Your task to perform on an android device: search for starred emails in the gmail app Image 0: 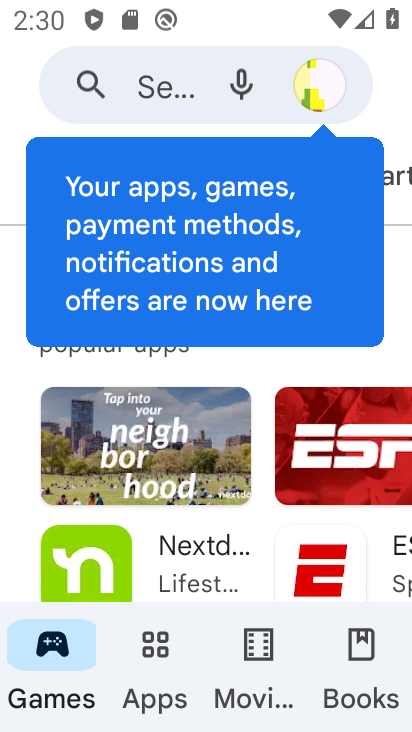
Step 0: press home button
Your task to perform on an android device: search for starred emails in the gmail app Image 1: 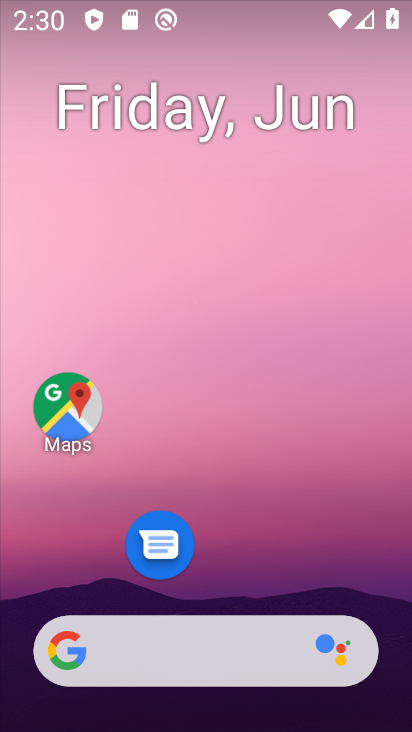
Step 1: drag from (240, 564) to (270, 138)
Your task to perform on an android device: search for starred emails in the gmail app Image 2: 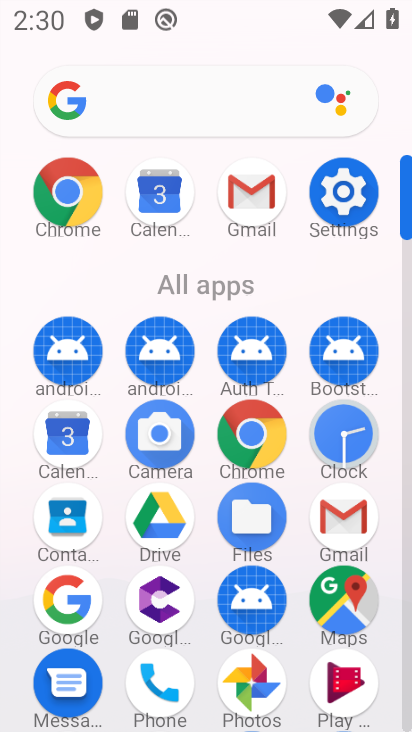
Step 2: click (332, 517)
Your task to perform on an android device: search for starred emails in the gmail app Image 3: 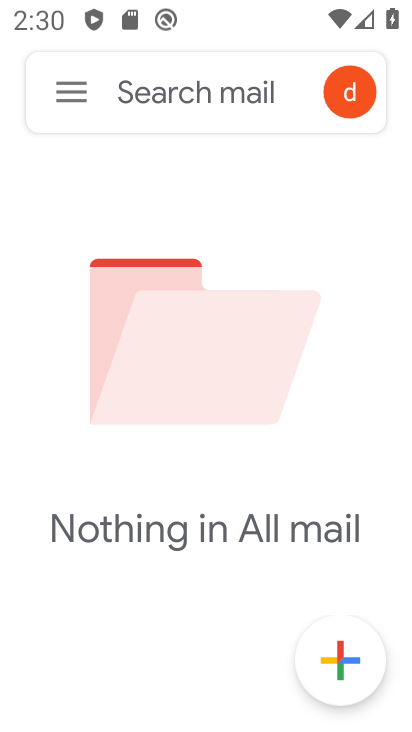
Step 3: click (65, 79)
Your task to perform on an android device: search for starred emails in the gmail app Image 4: 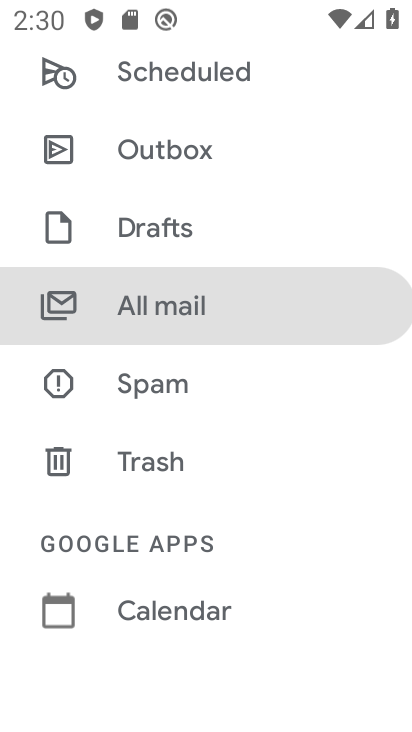
Step 4: drag from (175, 269) to (210, 635)
Your task to perform on an android device: search for starred emails in the gmail app Image 5: 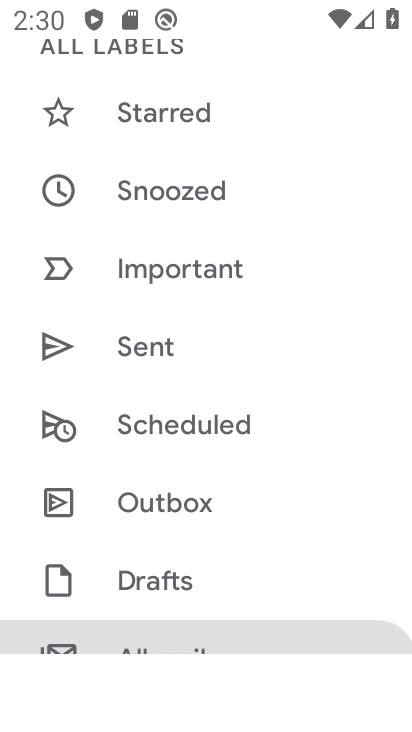
Step 5: click (173, 124)
Your task to perform on an android device: search for starred emails in the gmail app Image 6: 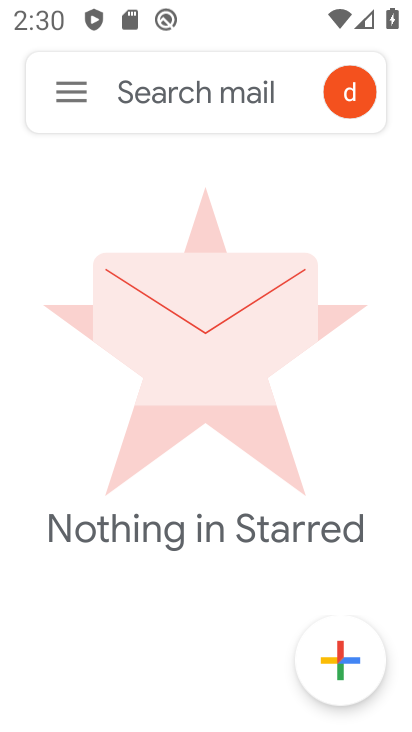
Step 6: task complete